Your task to perform on an android device: Search for a 36" x 48" whiteboard on Home Depot Image 0: 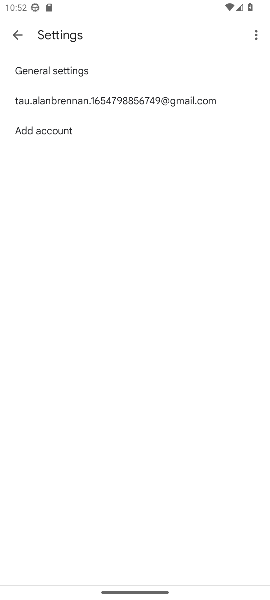
Step 0: press home button
Your task to perform on an android device: Search for a 36" x 48" whiteboard on Home Depot Image 1: 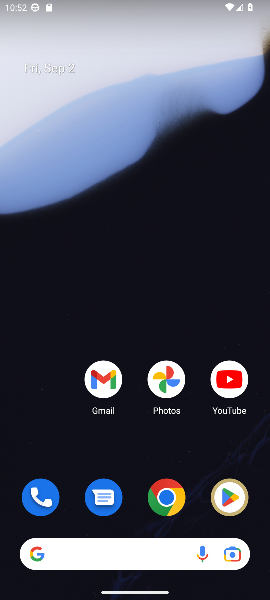
Step 1: drag from (158, 346) to (159, 113)
Your task to perform on an android device: Search for a 36" x 48" whiteboard on Home Depot Image 2: 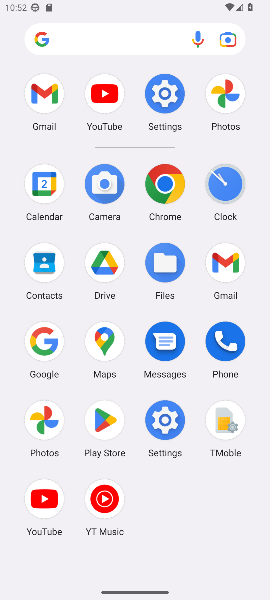
Step 2: click (35, 340)
Your task to perform on an android device: Search for a 36" x 48" whiteboard on Home Depot Image 3: 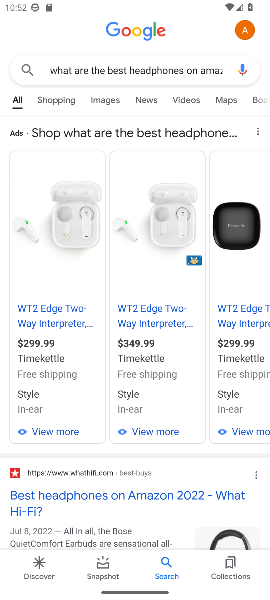
Step 3: click (199, 63)
Your task to perform on an android device: Search for a 36" x 48" whiteboard on Home Depot Image 4: 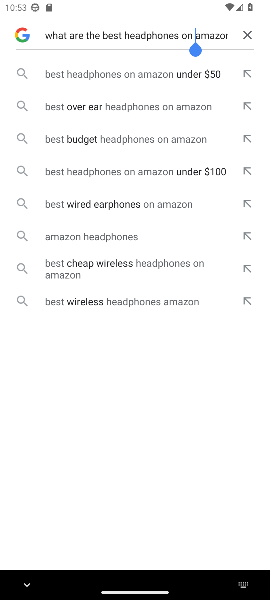
Step 4: click (245, 34)
Your task to perform on an android device: Search for a 36" x 48" whiteboard on Home Depot Image 5: 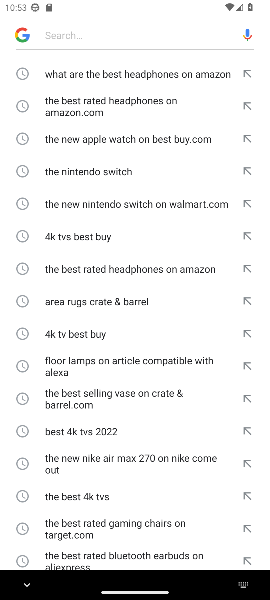
Step 5: type "36" x 48" whiteboard on Home Depot"
Your task to perform on an android device: Search for a 36" x 48" whiteboard on Home Depot Image 6: 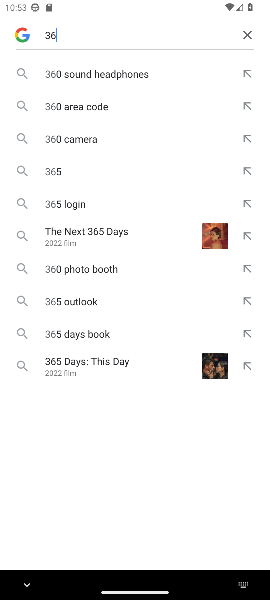
Step 6: task complete